Your task to perform on an android device: What's on my calendar today? Image 0: 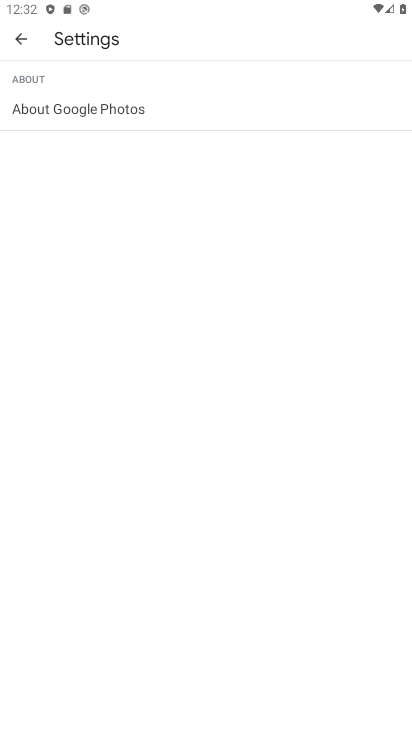
Step 0: drag from (197, 694) to (291, 13)
Your task to perform on an android device: What's on my calendar today? Image 1: 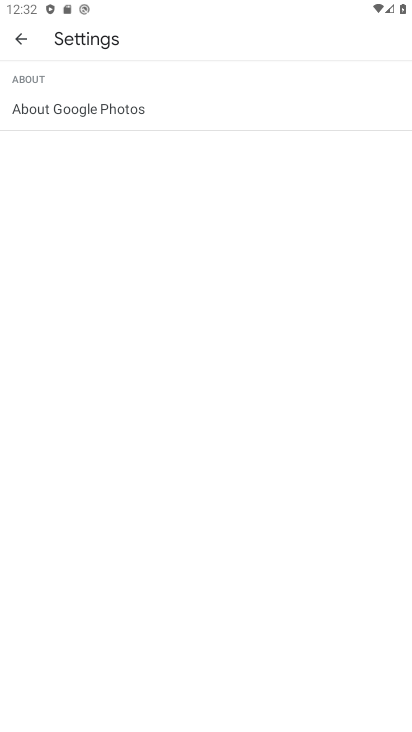
Step 1: press home button
Your task to perform on an android device: What's on my calendar today? Image 2: 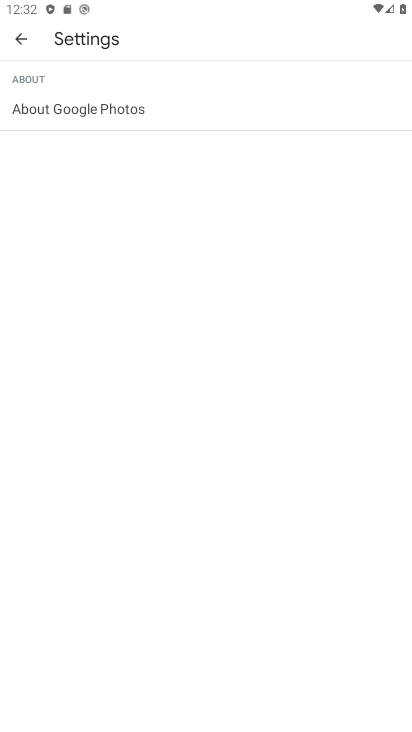
Step 2: drag from (291, 13) to (411, 684)
Your task to perform on an android device: What's on my calendar today? Image 3: 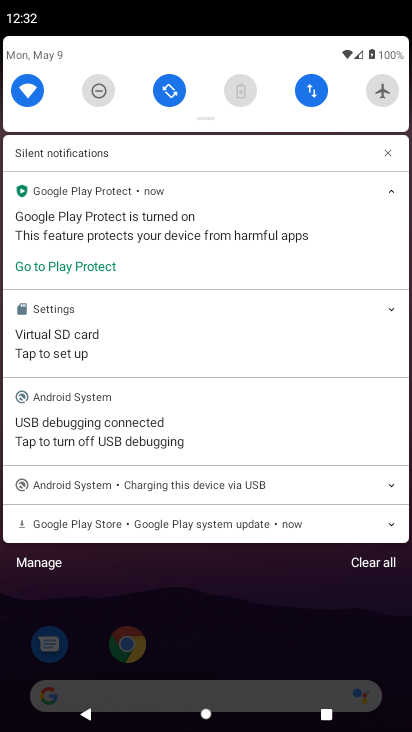
Step 3: press home button
Your task to perform on an android device: What's on my calendar today? Image 4: 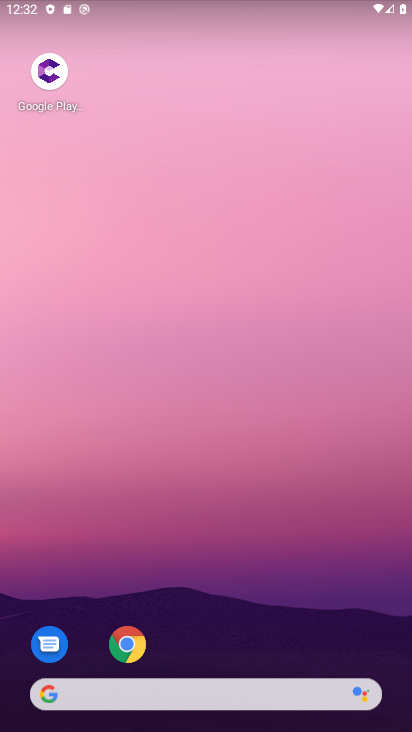
Step 4: drag from (221, 420) to (203, 178)
Your task to perform on an android device: What's on my calendar today? Image 5: 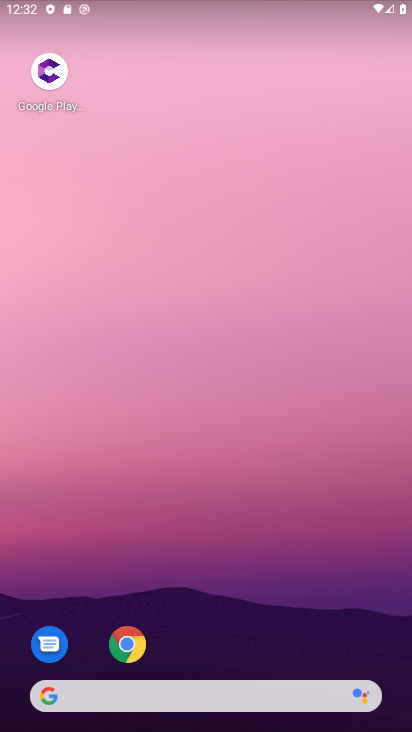
Step 5: drag from (292, 625) to (227, 120)
Your task to perform on an android device: What's on my calendar today? Image 6: 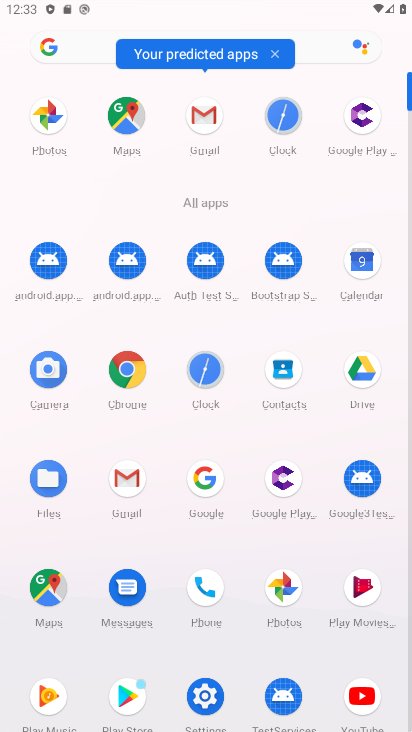
Step 6: click (373, 273)
Your task to perform on an android device: What's on my calendar today? Image 7: 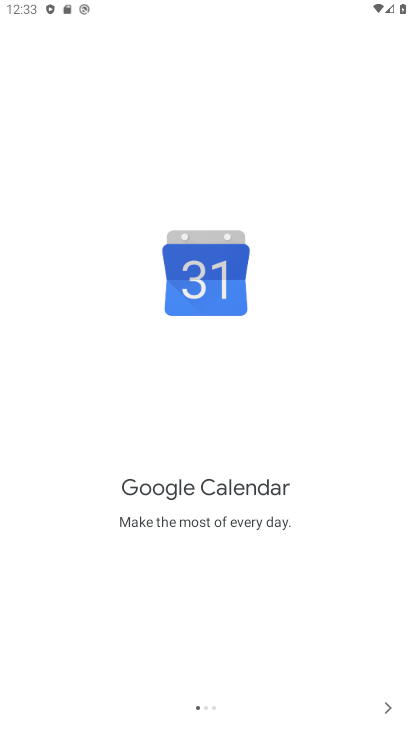
Step 7: click (392, 720)
Your task to perform on an android device: What's on my calendar today? Image 8: 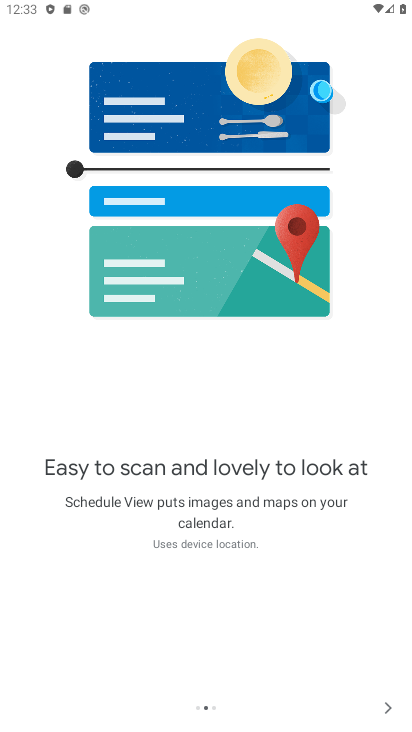
Step 8: click (392, 720)
Your task to perform on an android device: What's on my calendar today? Image 9: 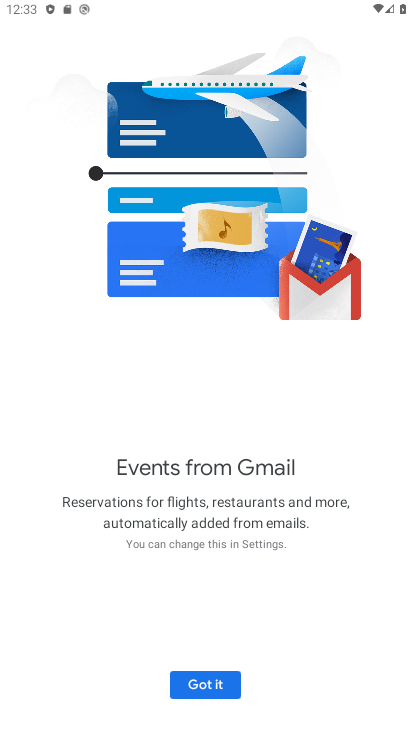
Step 9: click (212, 697)
Your task to perform on an android device: What's on my calendar today? Image 10: 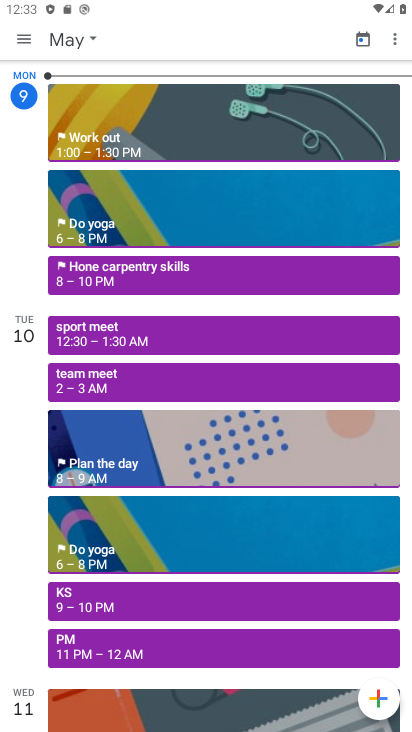
Step 10: task complete